Your task to perform on an android device: find snoozed emails in the gmail app Image 0: 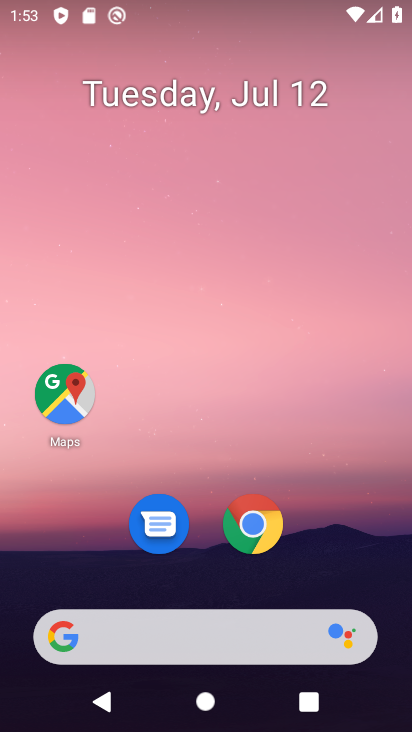
Step 0: drag from (326, 514) to (329, 10)
Your task to perform on an android device: find snoozed emails in the gmail app Image 1: 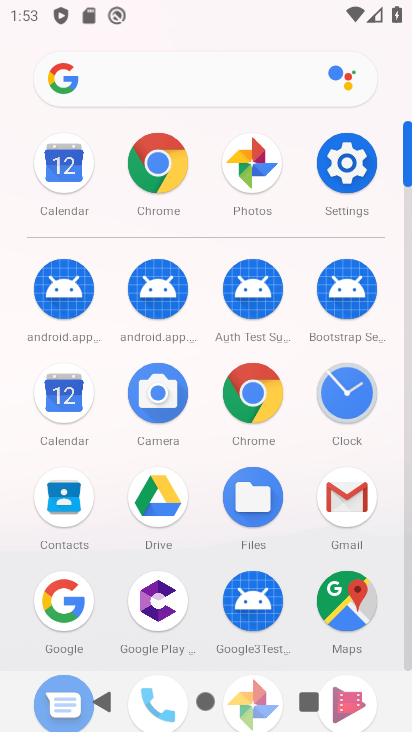
Step 1: click (344, 506)
Your task to perform on an android device: find snoozed emails in the gmail app Image 2: 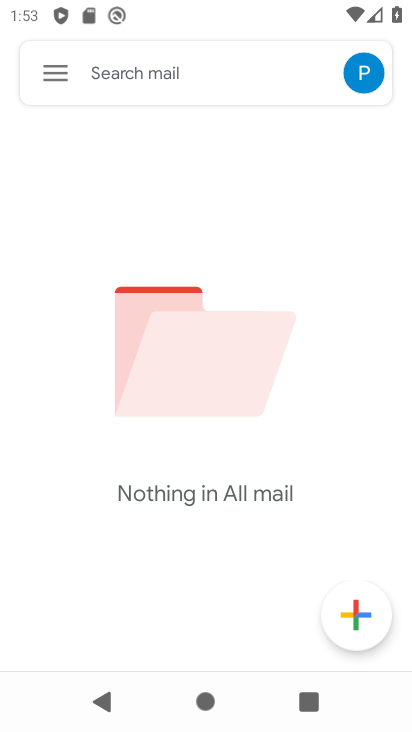
Step 2: click (56, 72)
Your task to perform on an android device: find snoozed emails in the gmail app Image 3: 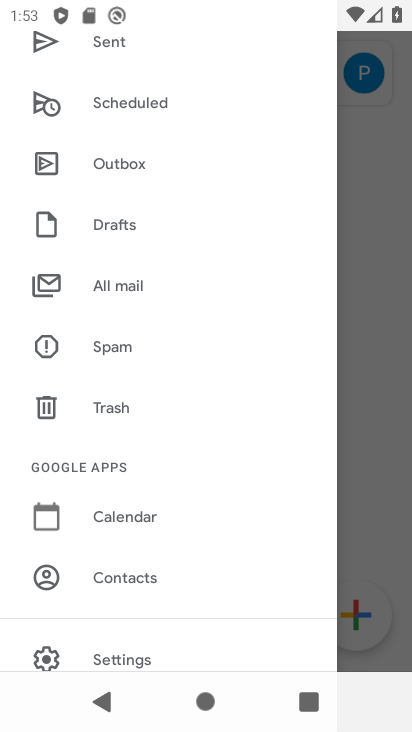
Step 3: drag from (180, 165) to (206, 559)
Your task to perform on an android device: find snoozed emails in the gmail app Image 4: 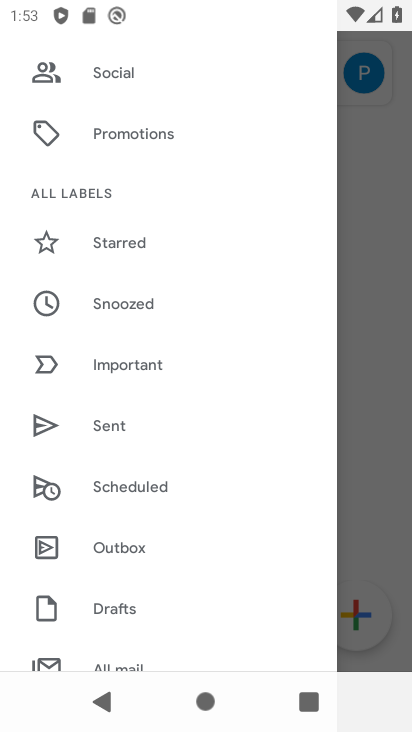
Step 4: click (142, 311)
Your task to perform on an android device: find snoozed emails in the gmail app Image 5: 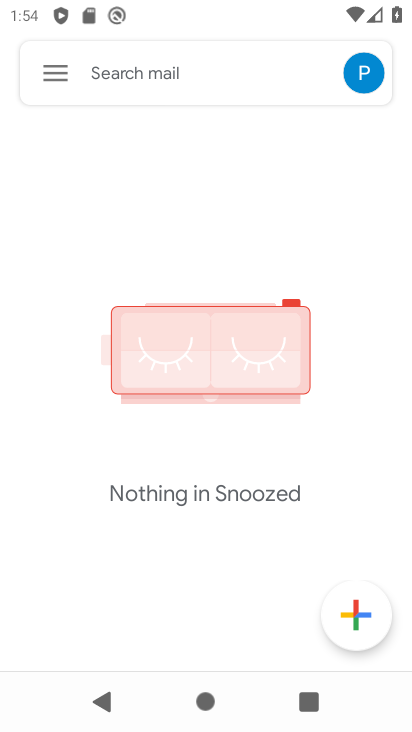
Step 5: task complete